Your task to perform on an android device: Open battery settings Image 0: 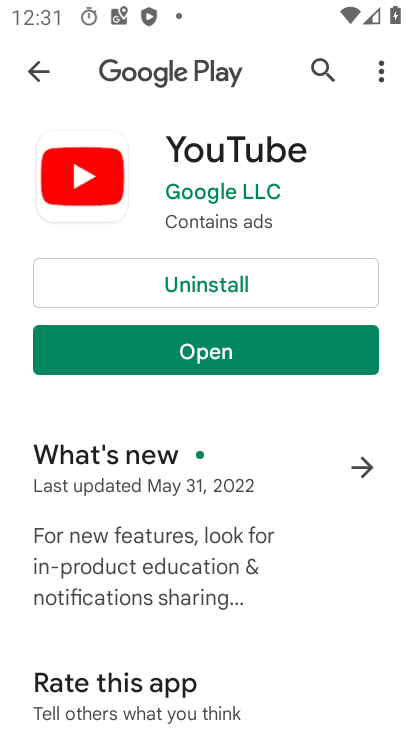
Step 0: press home button
Your task to perform on an android device: Open battery settings Image 1: 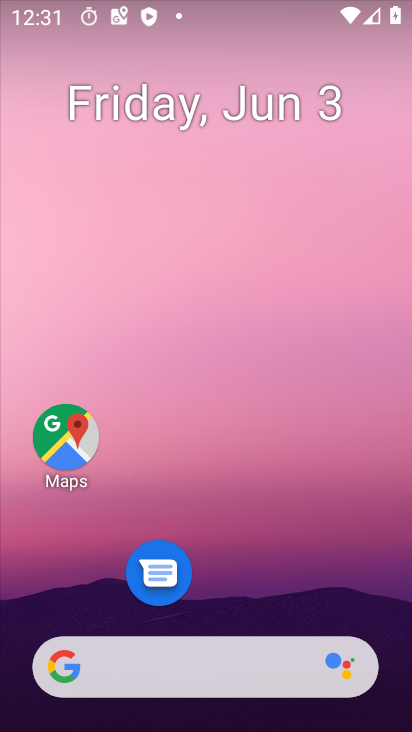
Step 1: drag from (298, 644) to (278, 38)
Your task to perform on an android device: Open battery settings Image 2: 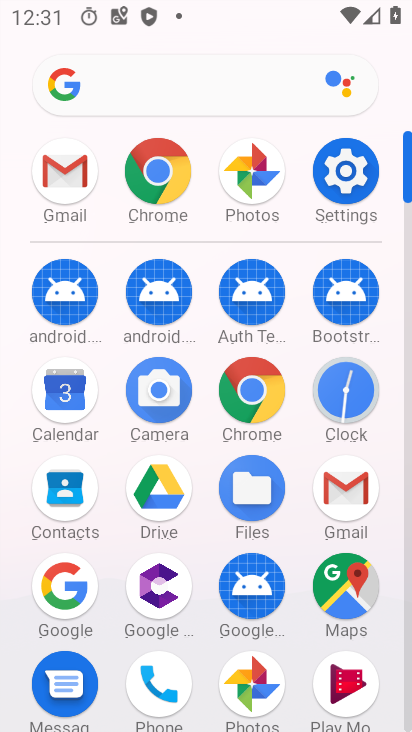
Step 2: click (374, 181)
Your task to perform on an android device: Open battery settings Image 3: 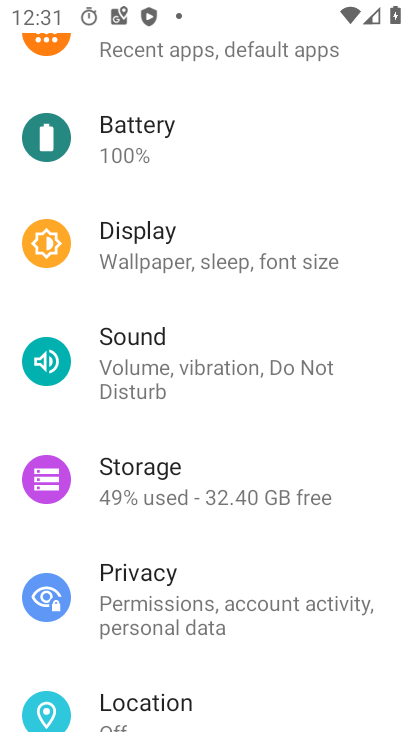
Step 3: click (236, 133)
Your task to perform on an android device: Open battery settings Image 4: 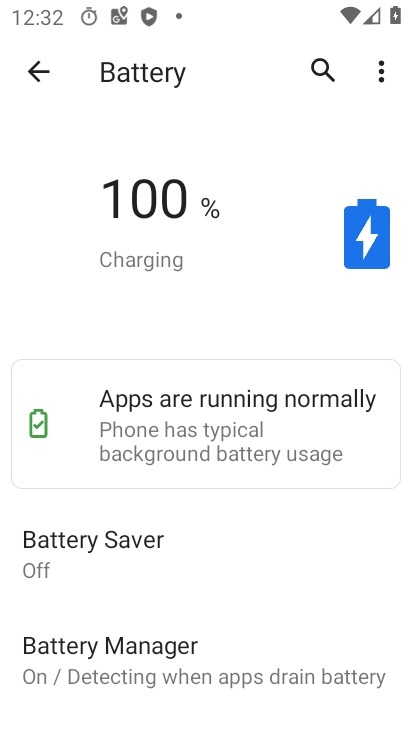
Step 4: task complete